Your task to perform on an android device: Search for Italian restaurants on Maps Image 0: 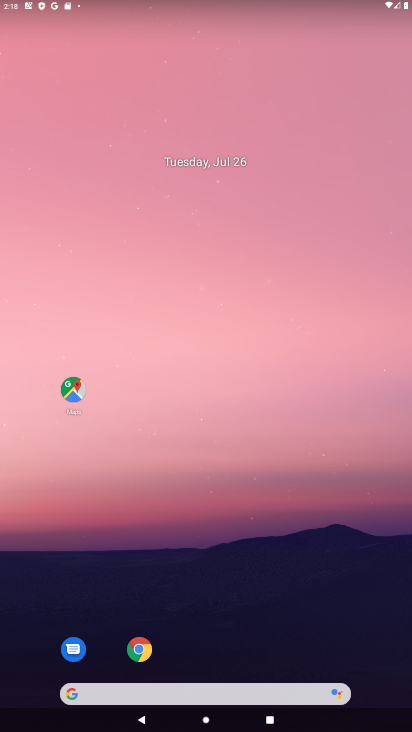
Step 0: click (66, 397)
Your task to perform on an android device: Search for Italian restaurants on Maps Image 1: 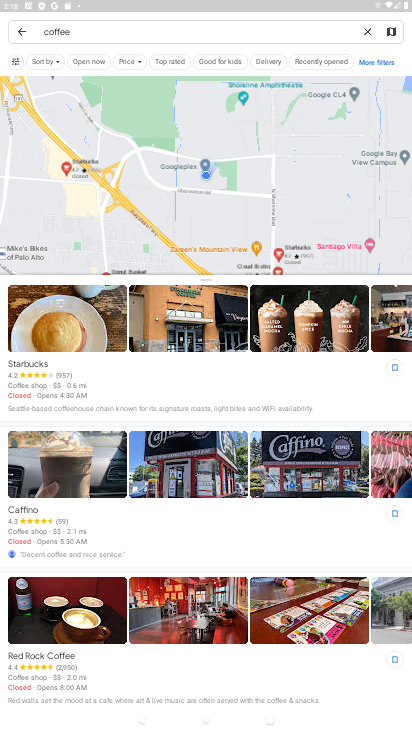
Step 1: click (366, 29)
Your task to perform on an android device: Search for Italian restaurants on Maps Image 2: 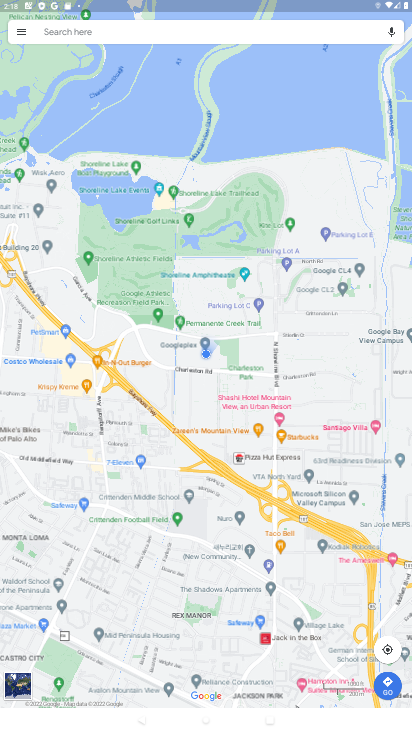
Step 2: click (135, 30)
Your task to perform on an android device: Search for Italian restaurants on Maps Image 3: 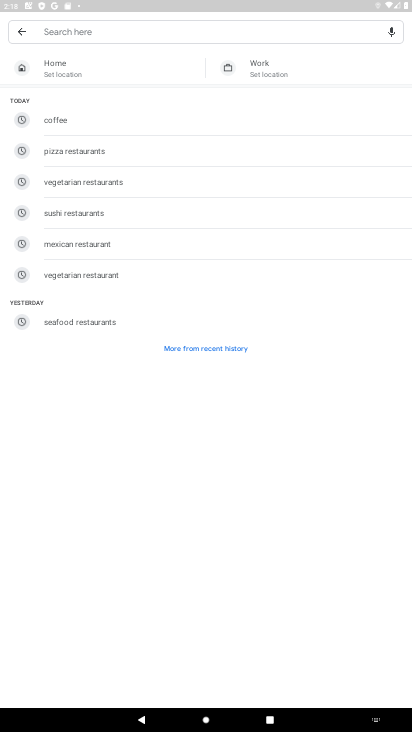
Step 3: type "italian restaurants"
Your task to perform on an android device: Search for Italian restaurants on Maps Image 4: 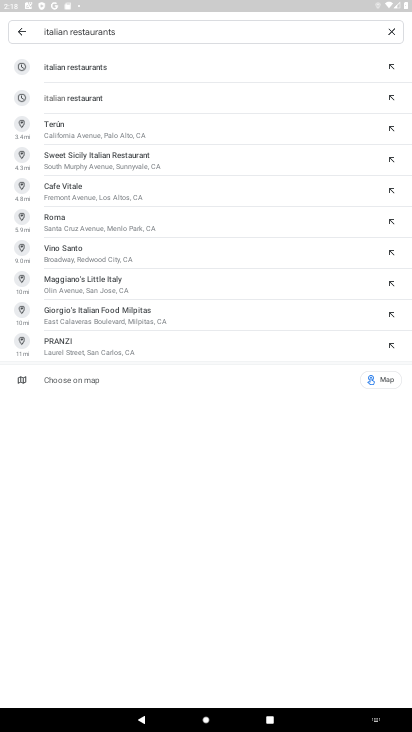
Step 4: click (104, 70)
Your task to perform on an android device: Search for Italian restaurants on Maps Image 5: 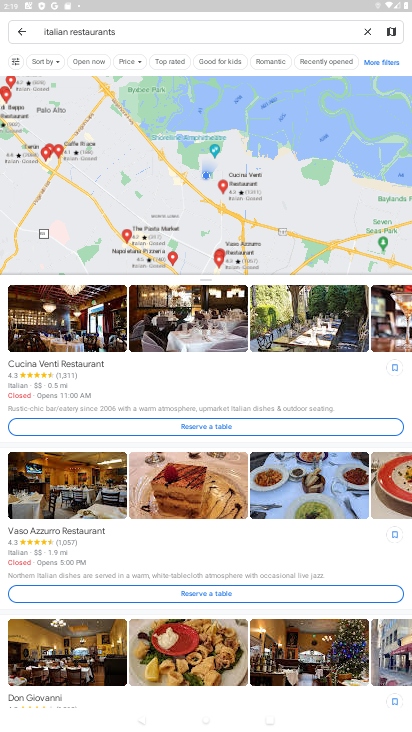
Step 5: task complete